Your task to perform on an android device: turn off location history Image 0: 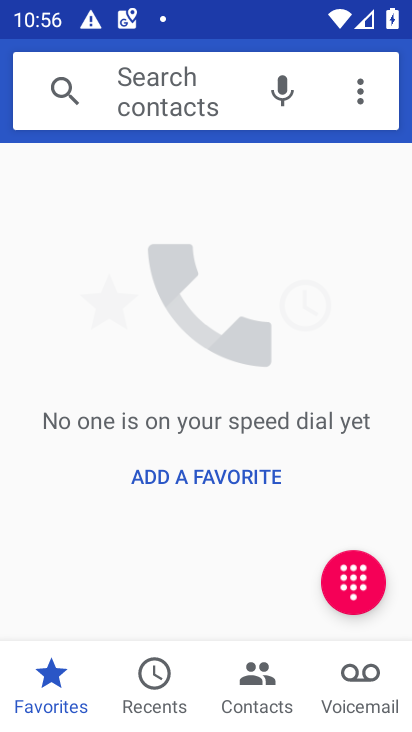
Step 0: press home button
Your task to perform on an android device: turn off location history Image 1: 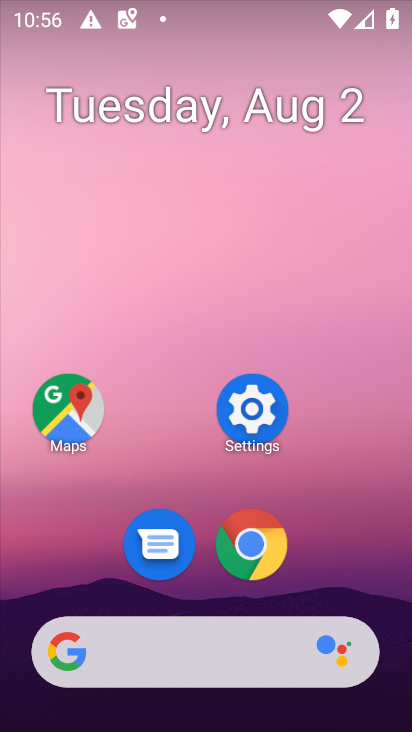
Step 1: click (78, 409)
Your task to perform on an android device: turn off location history Image 2: 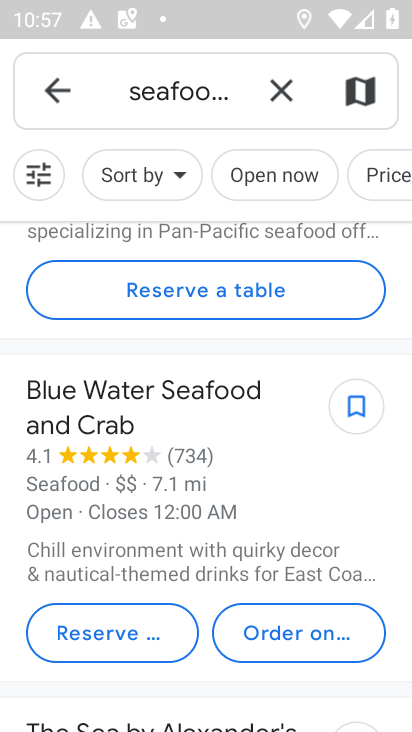
Step 2: click (56, 76)
Your task to perform on an android device: turn off location history Image 3: 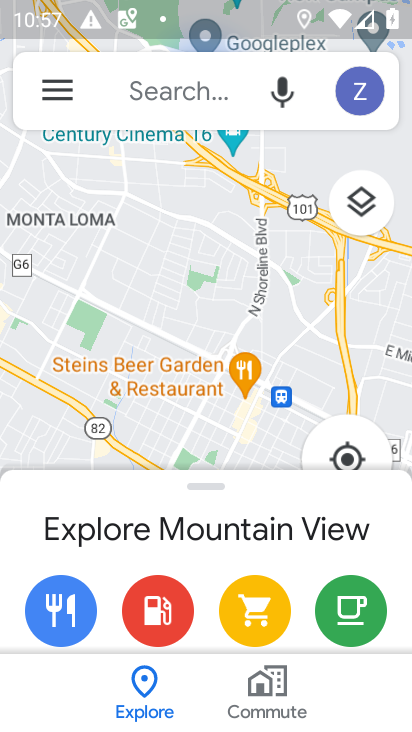
Step 3: click (56, 84)
Your task to perform on an android device: turn off location history Image 4: 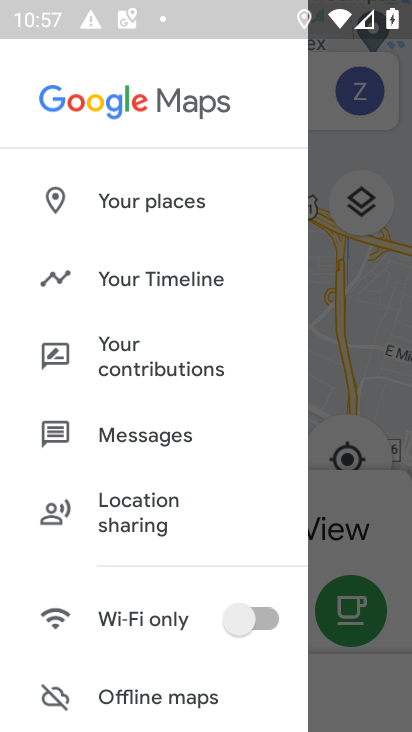
Step 4: click (164, 286)
Your task to perform on an android device: turn off location history Image 5: 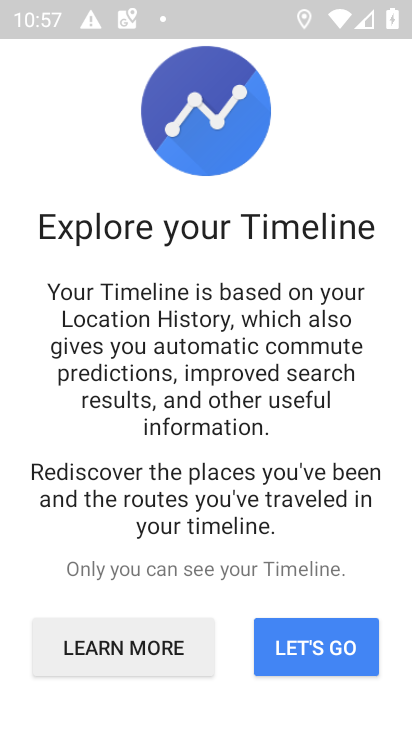
Step 5: click (322, 653)
Your task to perform on an android device: turn off location history Image 6: 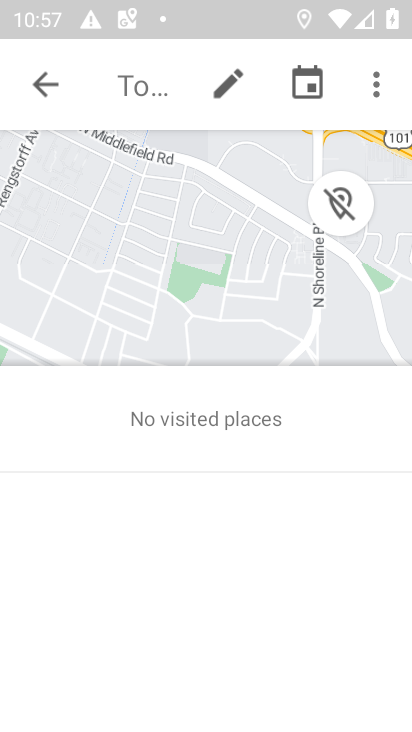
Step 6: click (380, 87)
Your task to perform on an android device: turn off location history Image 7: 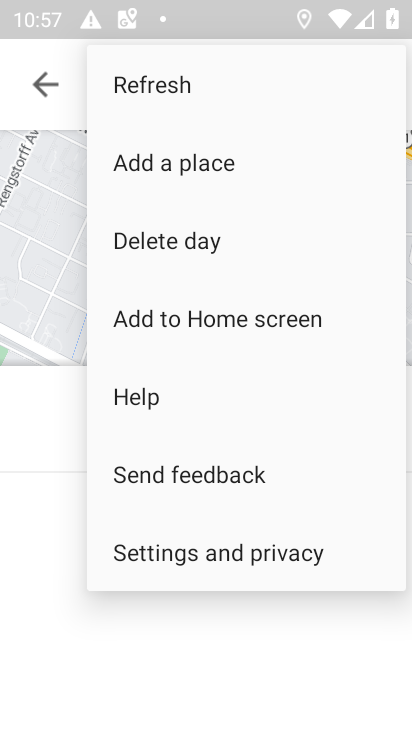
Step 7: click (224, 547)
Your task to perform on an android device: turn off location history Image 8: 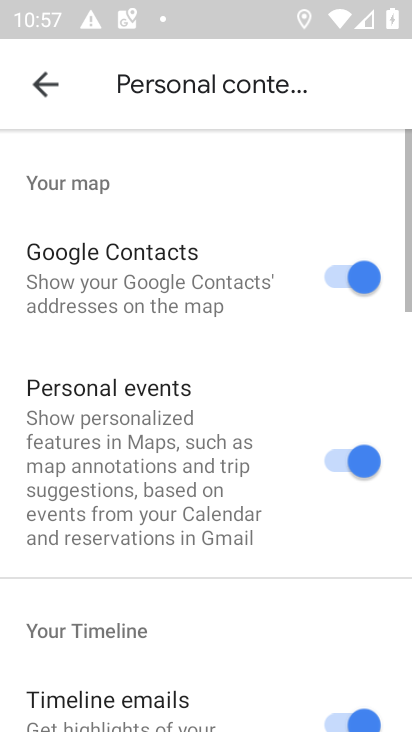
Step 8: drag from (227, 622) to (339, 66)
Your task to perform on an android device: turn off location history Image 9: 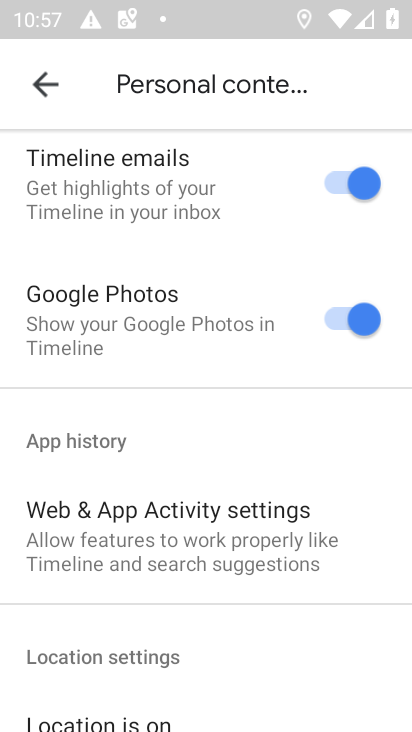
Step 9: drag from (218, 594) to (316, 85)
Your task to perform on an android device: turn off location history Image 10: 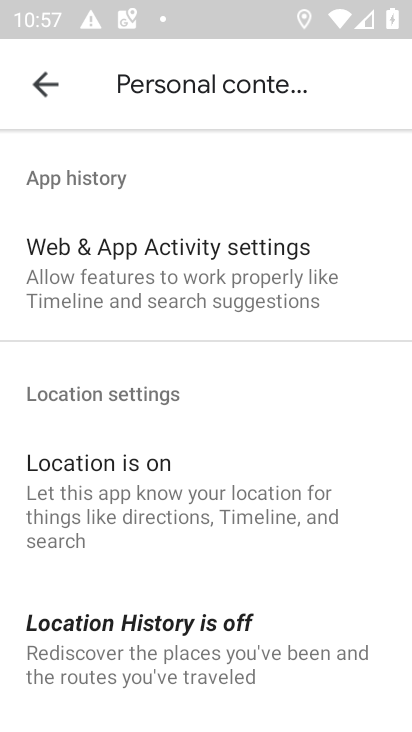
Step 10: click (179, 643)
Your task to perform on an android device: turn off location history Image 11: 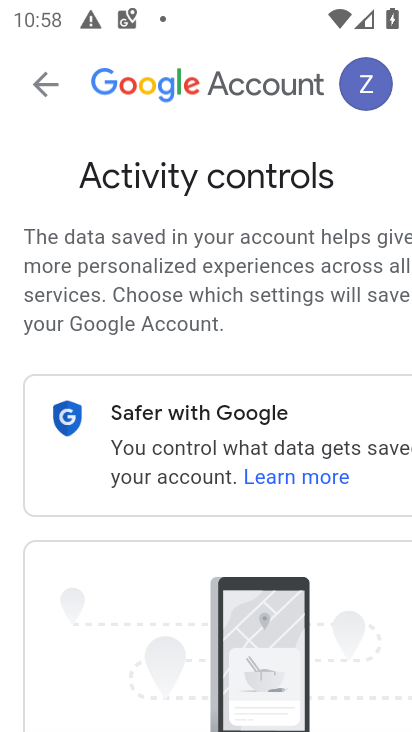
Step 11: task complete